Your task to perform on an android device: Do I have any events this weekend? Image 0: 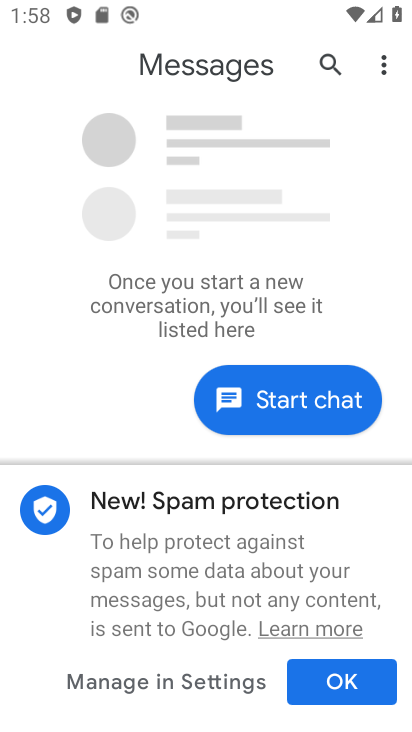
Step 0: press home button
Your task to perform on an android device: Do I have any events this weekend? Image 1: 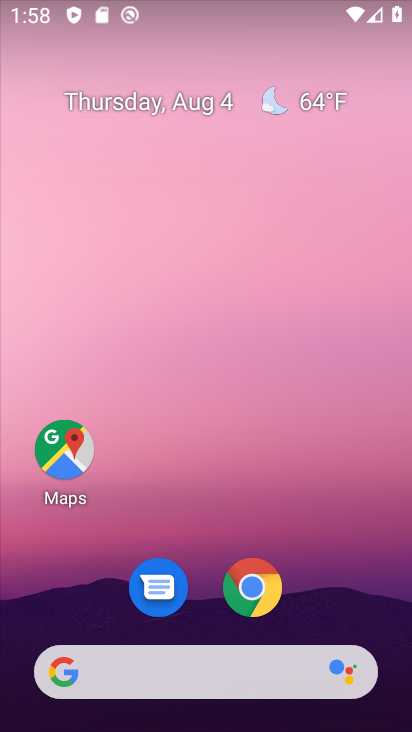
Step 1: drag from (303, 572) to (211, 67)
Your task to perform on an android device: Do I have any events this weekend? Image 2: 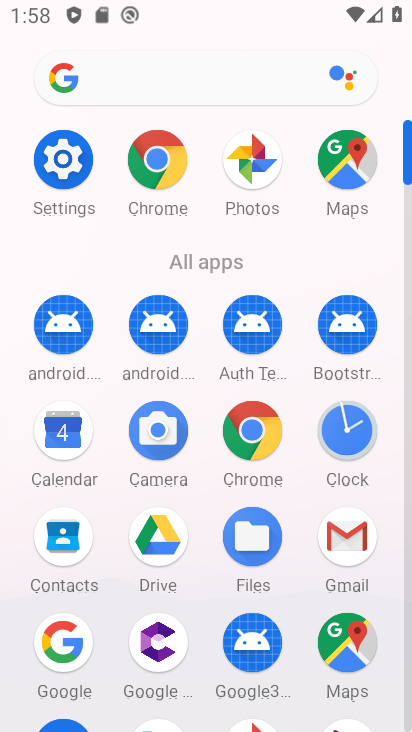
Step 2: click (68, 436)
Your task to perform on an android device: Do I have any events this weekend? Image 3: 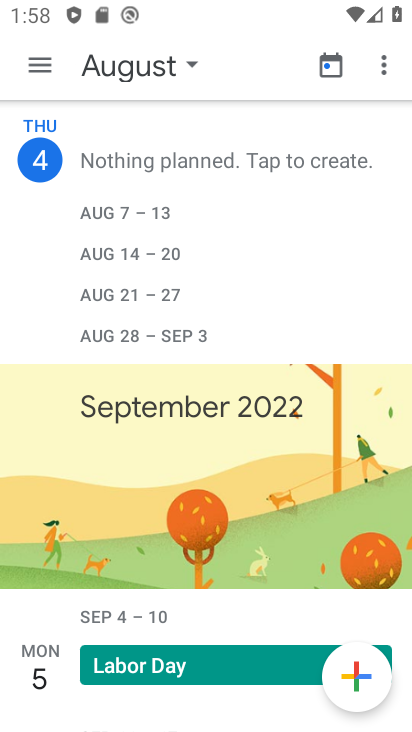
Step 3: click (33, 62)
Your task to perform on an android device: Do I have any events this weekend? Image 4: 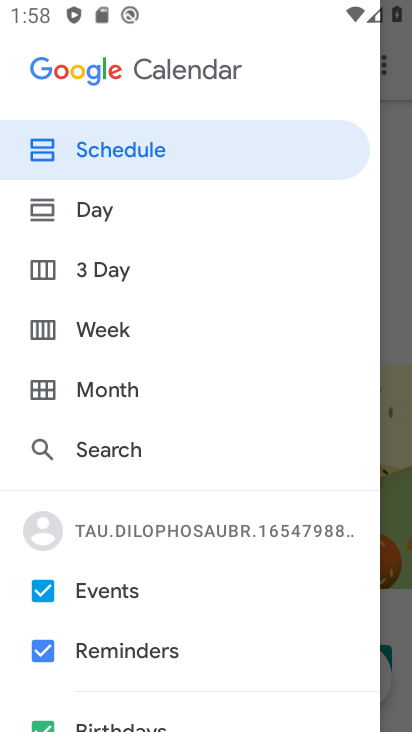
Step 4: click (89, 325)
Your task to perform on an android device: Do I have any events this weekend? Image 5: 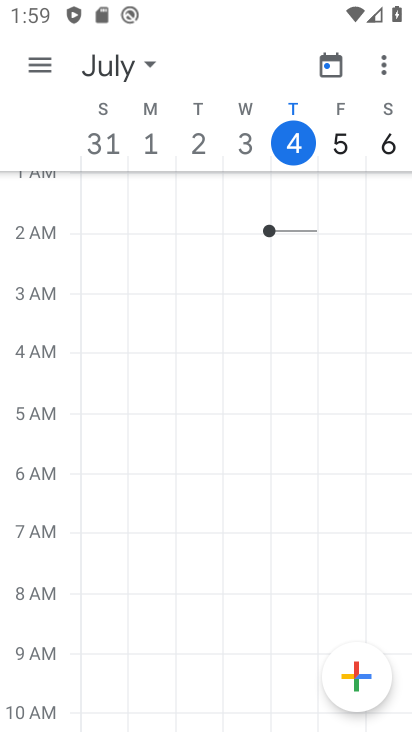
Step 5: task complete